Your task to perform on an android device: Show me popular videos on Youtube Image 0: 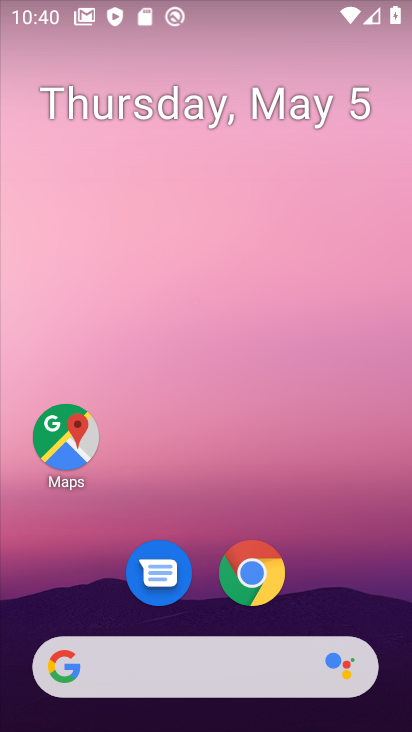
Step 0: drag from (336, 547) to (321, 279)
Your task to perform on an android device: Show me popular videos on Youtube Image 1: 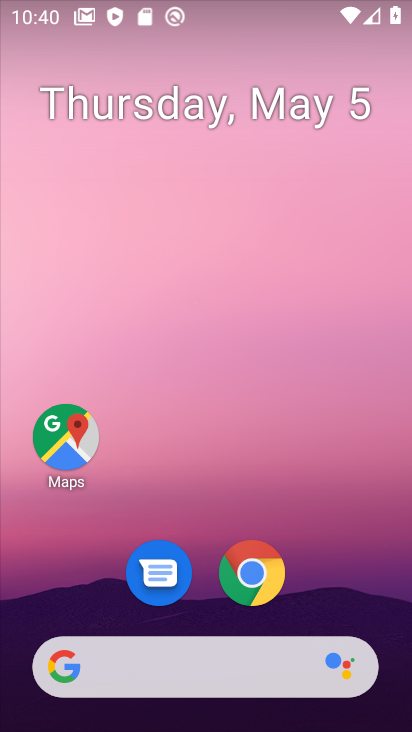
Step 1: drag from (302, 590) to (308, 138)
Your task to perform on an android device: Show me popular videos on Youtube Image 2: 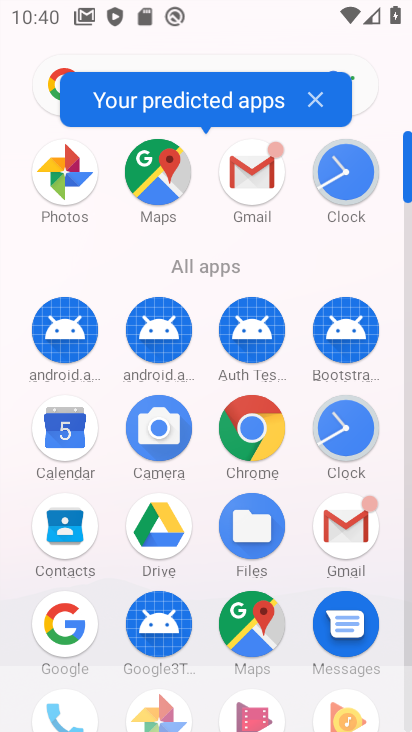
Step 2: drag from (296, 668) to (312, 275)
Your task to perform on an android device: Show me popular videos on Youtube Image 3: 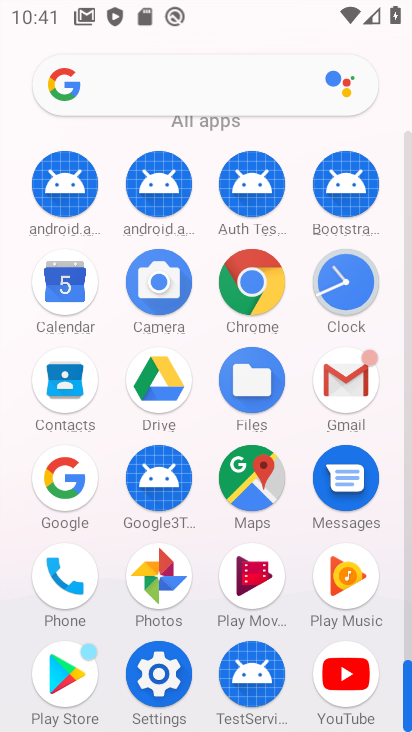
Step 3: click (337, 680)
Your task to perform on an android device: Show me popular videos on Youtube Image 4: 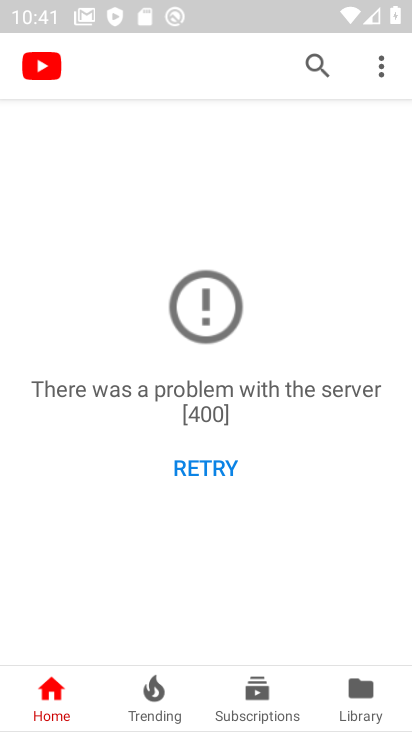
Step 4: click (312, 67)
Your task to perform on an android device: Show me popular videos on Youtube Image 5: 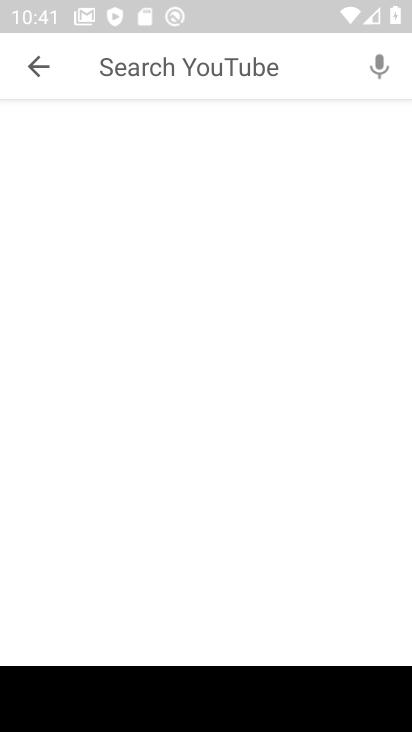
Step 5: type "btsband"
Your task to perform on an android device: Show me popular videos on Youtube Image 6: 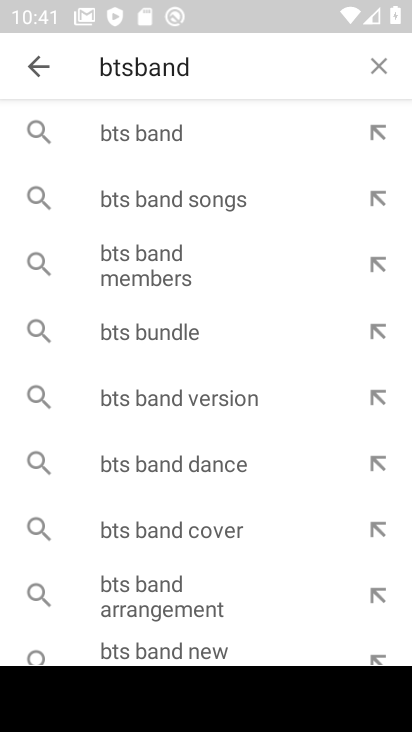
Step 6: click (222, 137)
Your task to perform on an android device: Show me popular videos on Youtube Image 7: 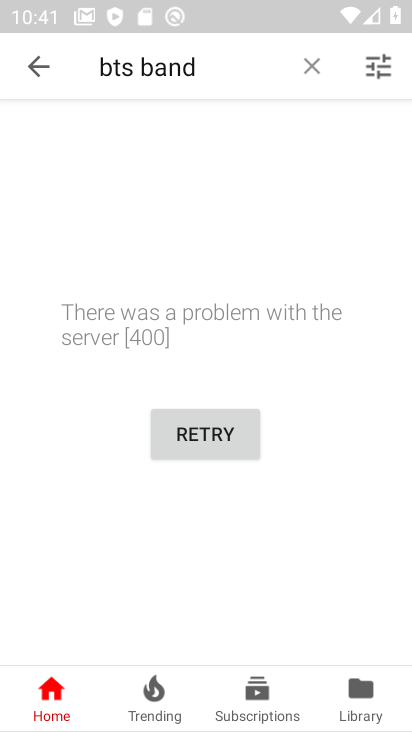
Step 7: task complete